Your task to perform on an android device: Open Chrome and go to settings Image 0: 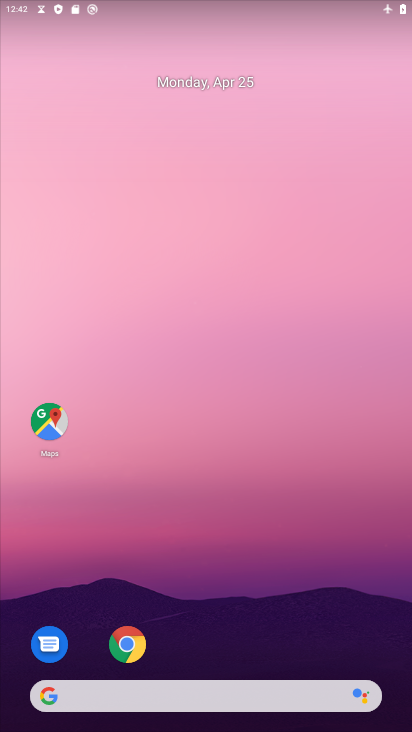
Step 0: click (132, 649)
Your task to perform on an android device: Open Chrome and go to settings Image 1: 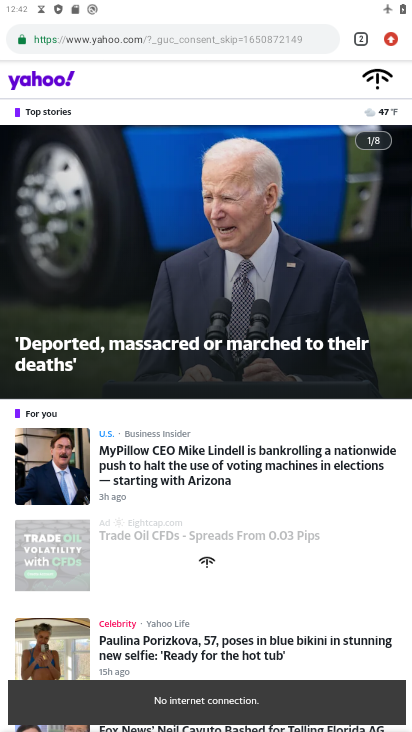
Step 1: task complete